Your task to perform on an android device: Open Yahoo.com Image 0: 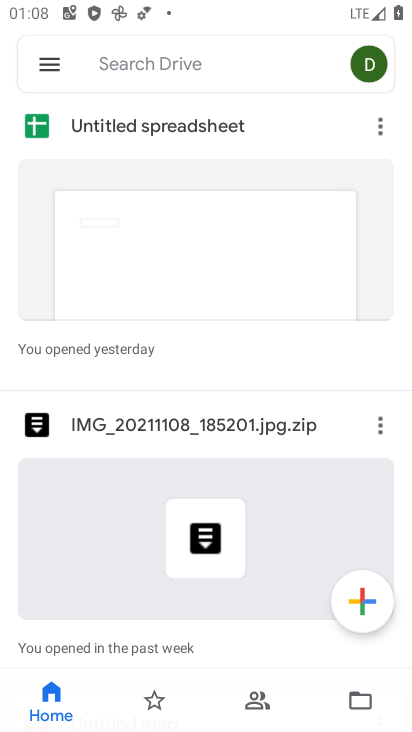
Step 0: press home button
Your task to perform on an android device: Open Yahoo.com Image 1: 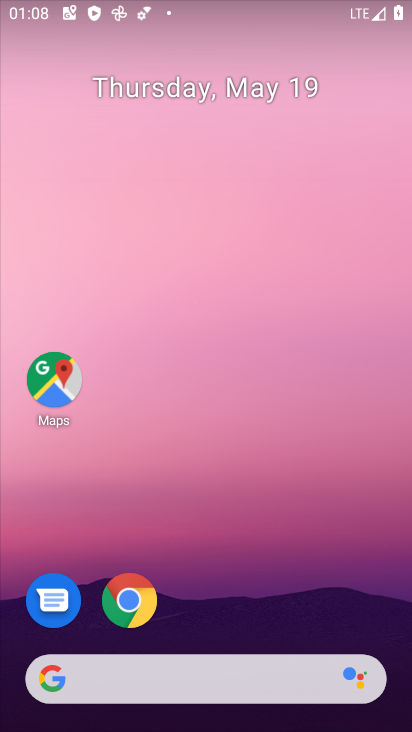
Step 1: click (121, 602)
Your task to perform on an android device: Open Yahoo.com Image 2: 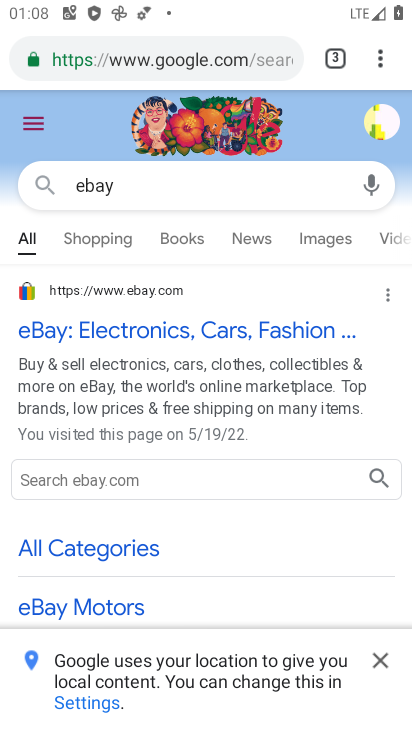
Step 2: click (383, 52)
Your task to perform on an android device: Open Yahoo.com Image 3: 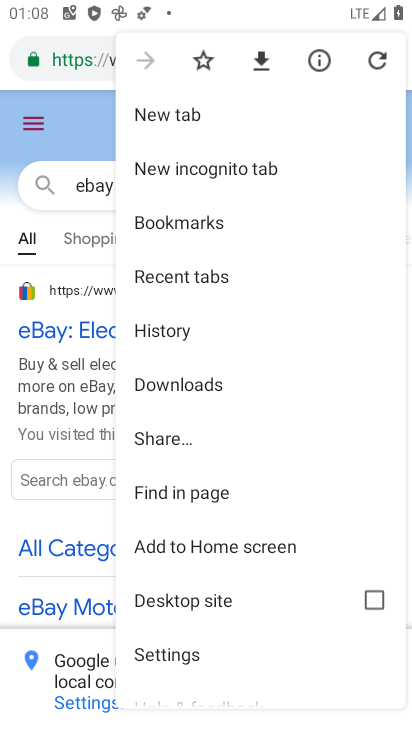
Step 3: click (181, 115)
Your task to perform on an android device: Open Yahoo.com Image 4: 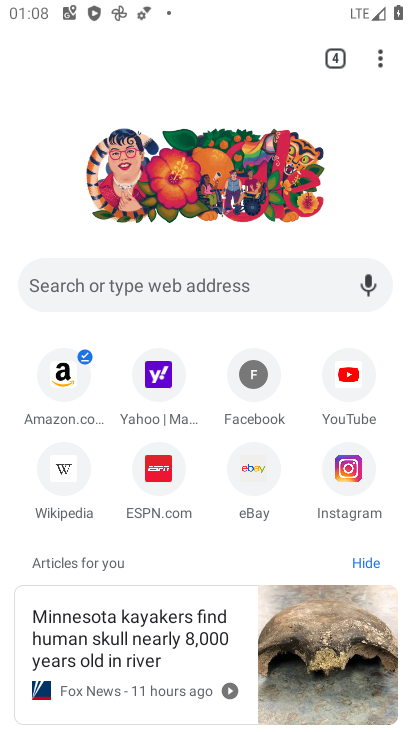
Step 4: click (155, 376)
Your task to perform on an android device: Open Yahoo.com Image 5: 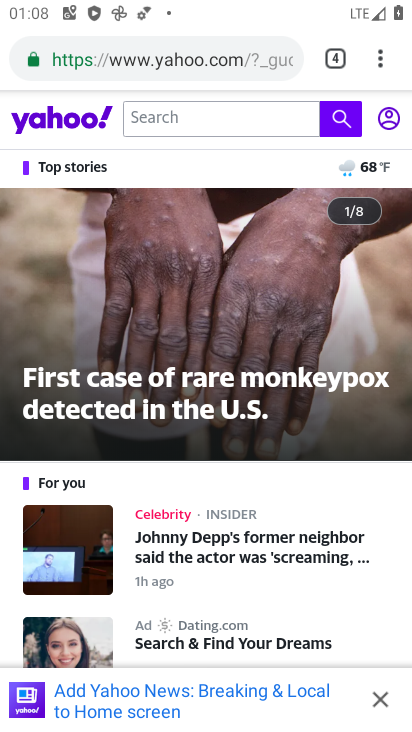
Step 5: task complete